Your task to perform on an android device: set the stopwatch Image 0: 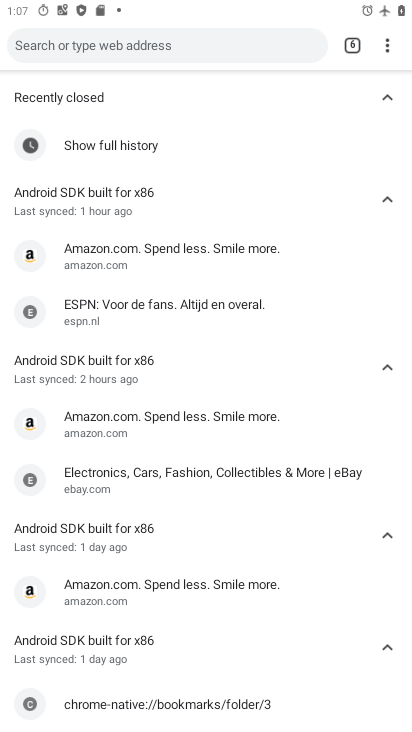
Step 0: press home button
Your task to perform on an android device: set the stopwatch Image 1: 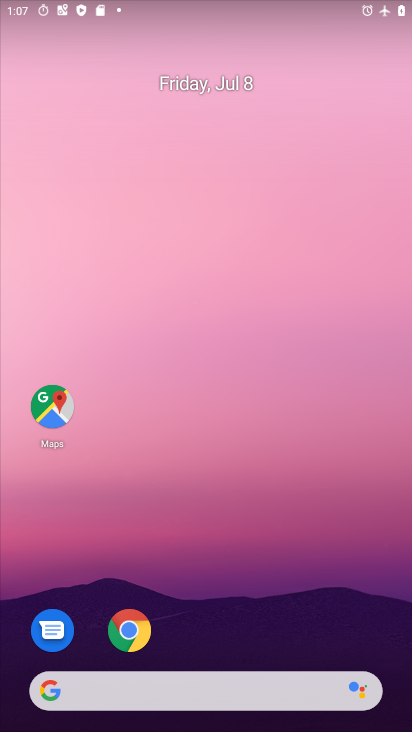
Step 1: drag from (185, 623) to (200, 141)
Your task to perform on an android device: set the stopwatch Image 2: 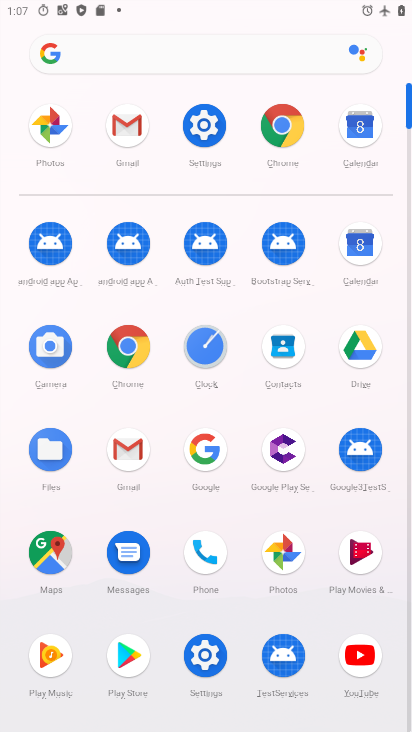
Step 2: click (194, 359)
Your task to perform on an android device: set the stopwatch Image 3: 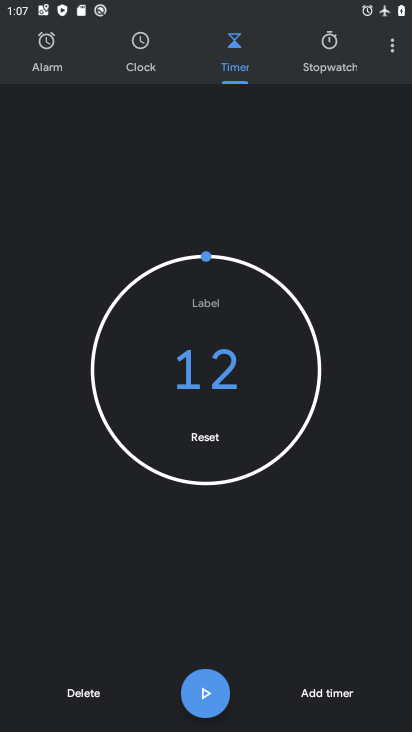
Step 3: click (315, 36)
Your task to perform on an android device: set the stopwatch Image 4: 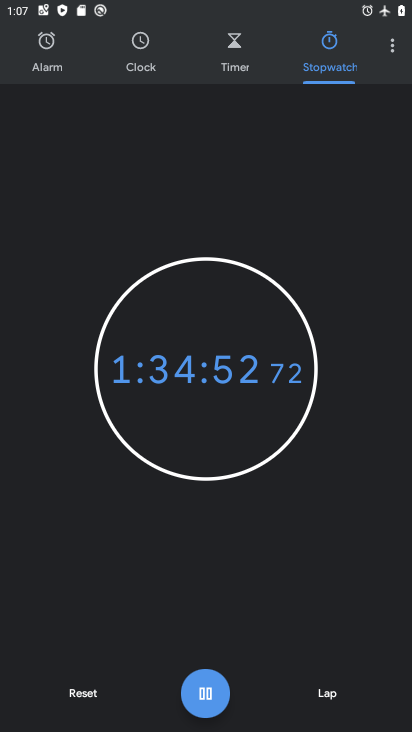
Step 4: click (211, 696)
Your task to perform on an android device: set the stopwatch Image 5: 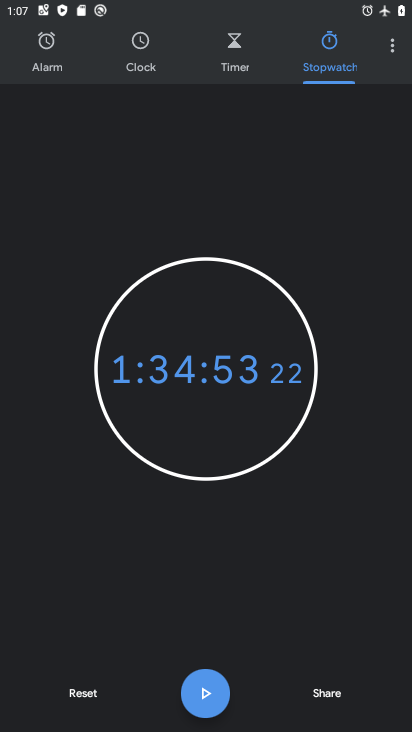
Step 5: task complete